Your task to perform on an android device: see sites visited before in the chrome app Image 0: 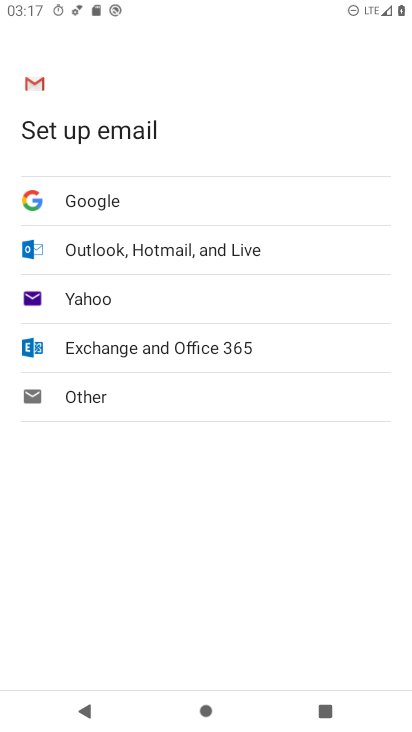
Step 0: press home button
Your task to perform on an android device: see sites visited before in the chrome app Image 1: 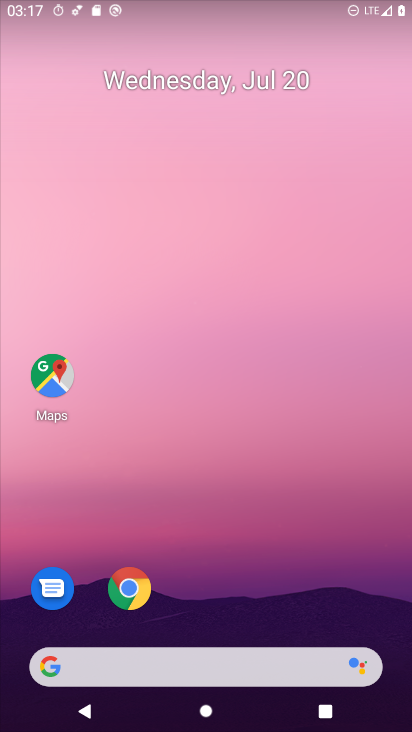
Step 1: click (151, 602)
Your task to perform on an android device: see sites visited before in the chrome app Image 2: 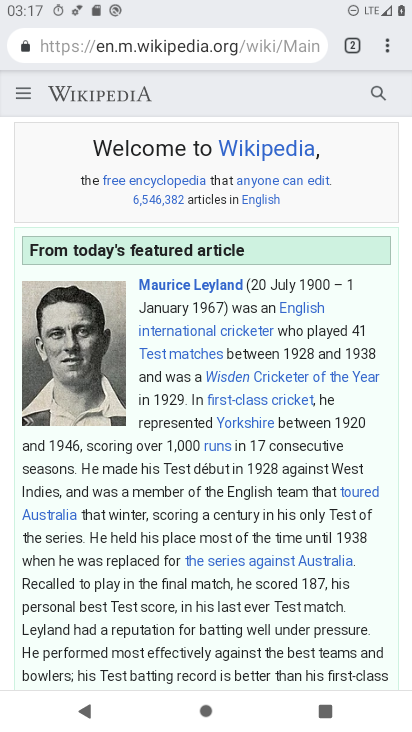
Step 2: click (347, 39)
Your task to perform on an android device: see sites visited before in the chrome app Image 3: 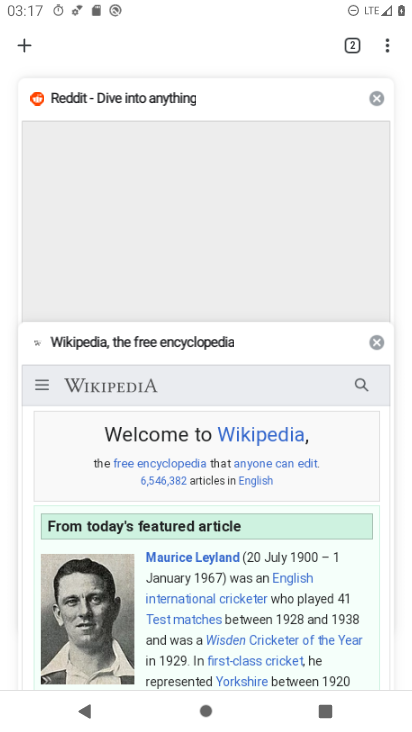
Step 3: task complete